Your task to perform on an android device: find which apps use the phone's location Image 0: 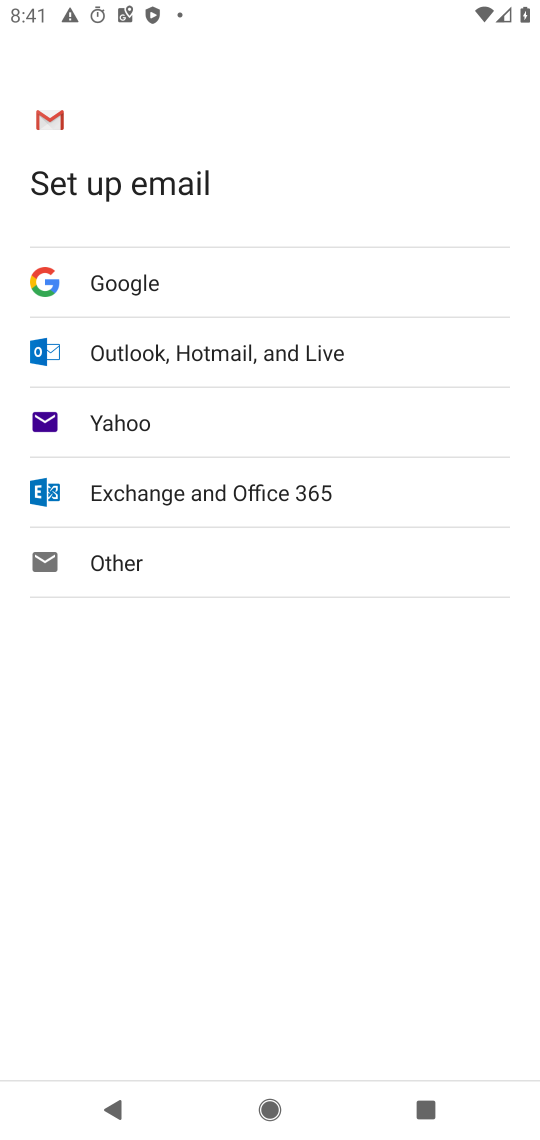
Step 0: press home button
Your task to perform on an android device: find which apps use the phone's location Image 1: 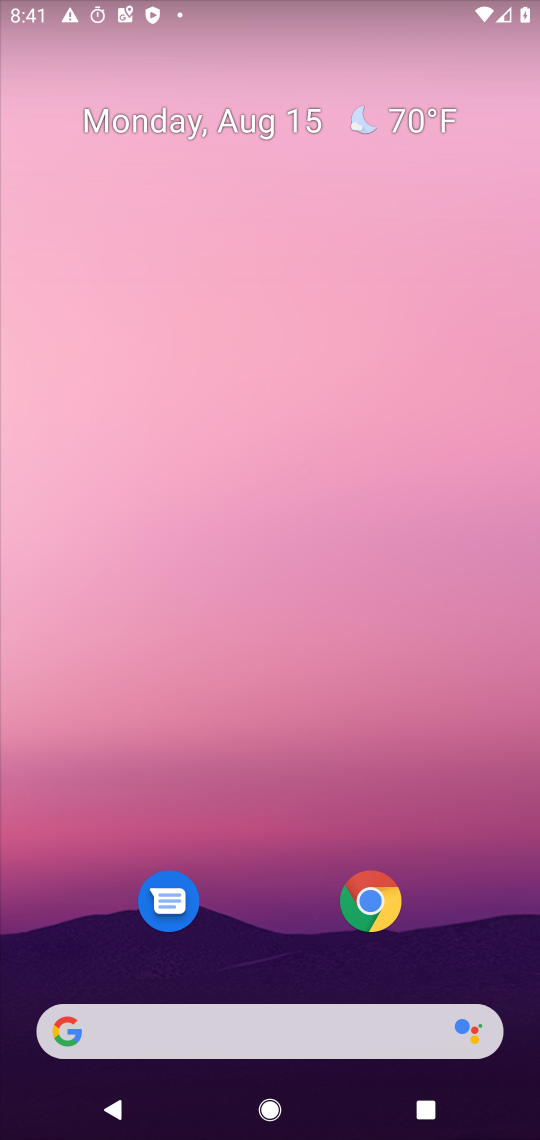
Step 1: drag from (258, 891) to (179, 22)
Your task to perform on an android device: find which apps use the phone's location Image 2: 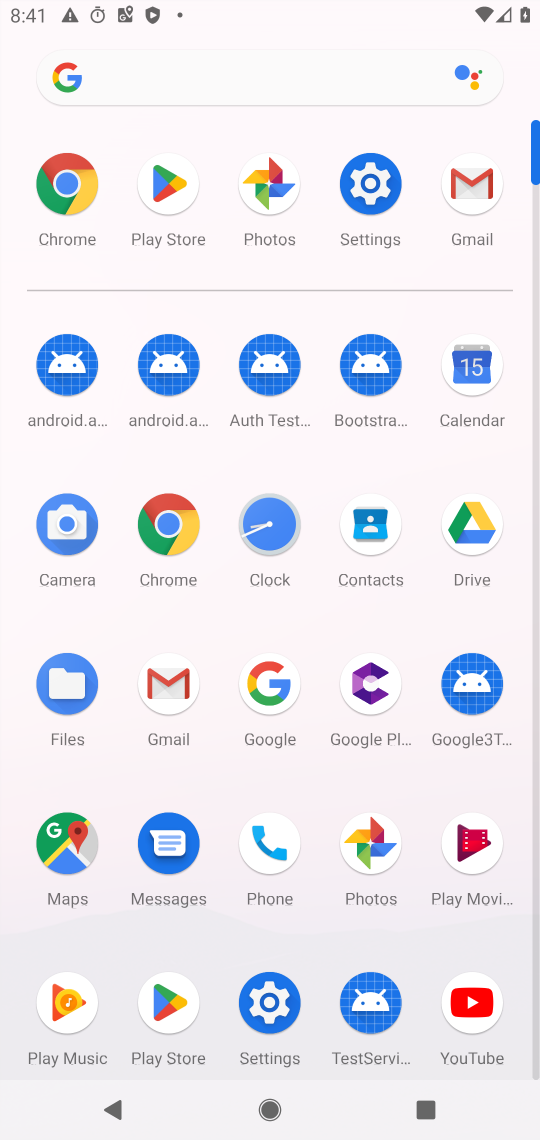
Step 2: click (286, 1002)
Your task to perform on an android device: find which apps use the phone's location Image 3: 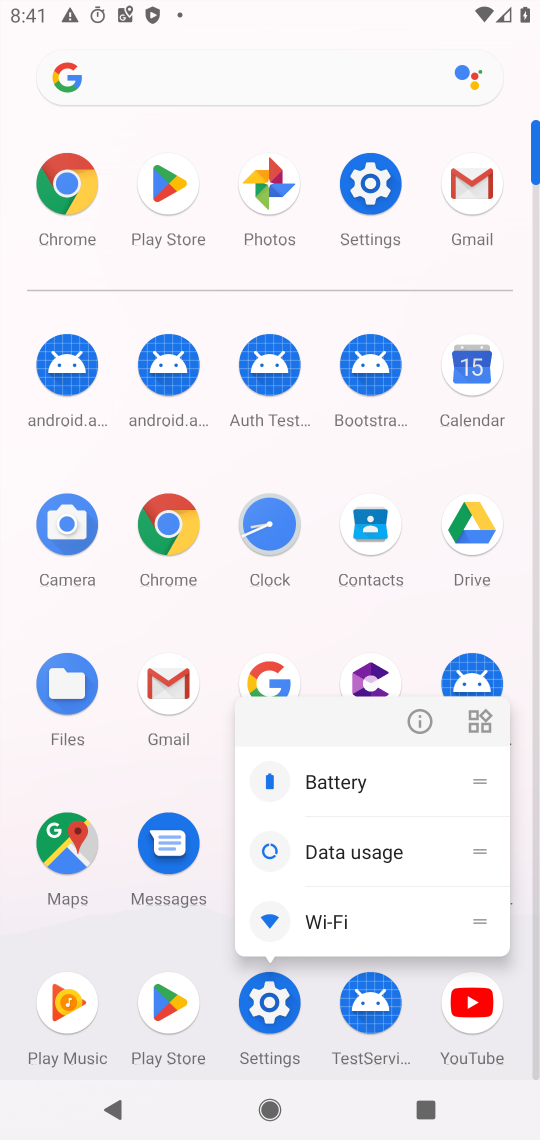
Step 3: click (260, 1002)
Your task to perform on an android device: find which apps use the phone's location Image 4: 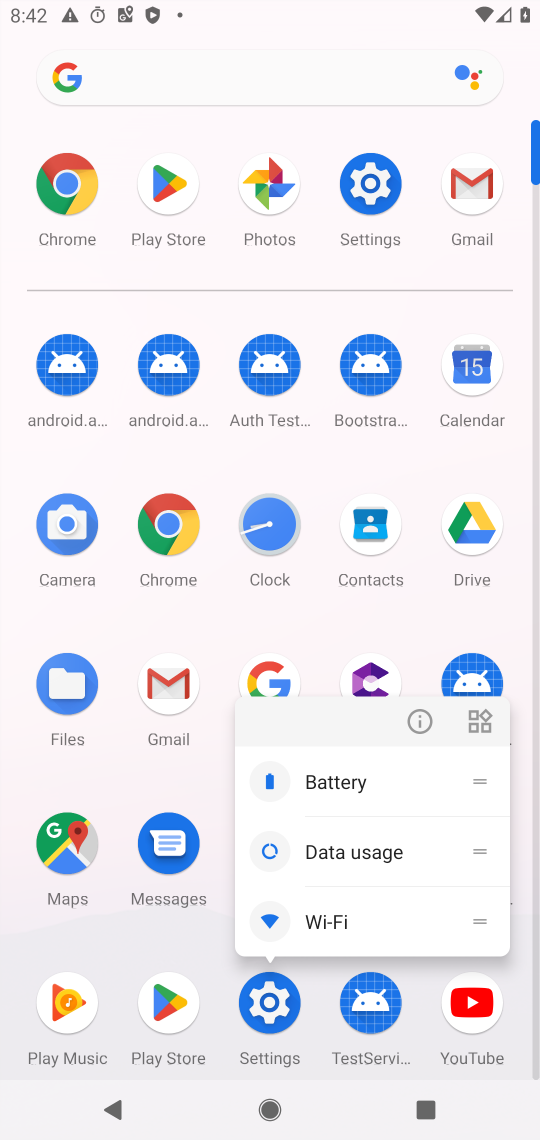
Step 4: click (260, 1002)
Your task to perform on an android device: find which apps use the phone's location Image 5: 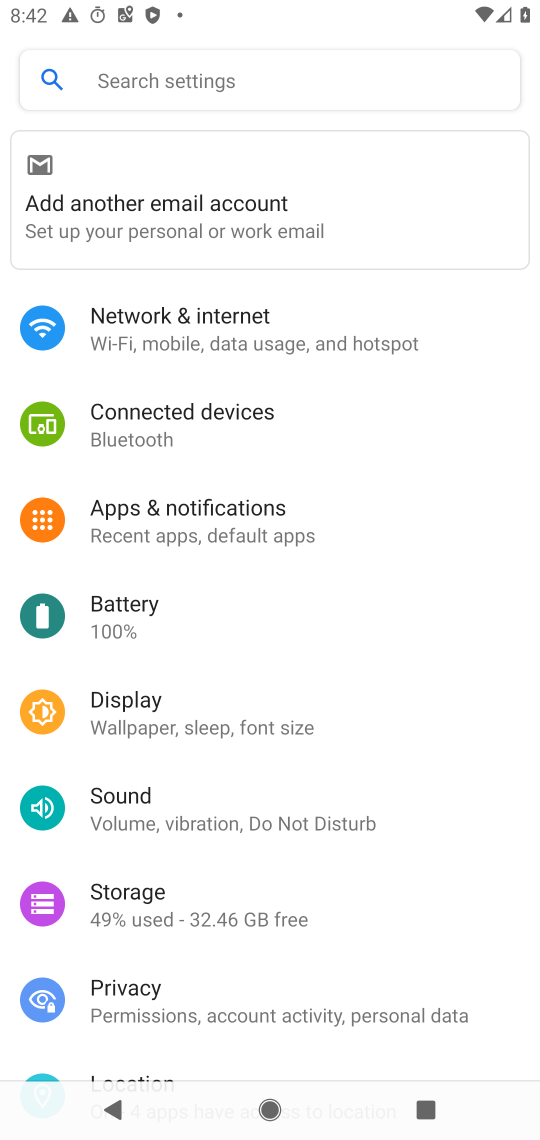
Step 5: drag from (150, 1031) to (166, 609)
Your task to perform on an android device: find which apps use the phone's location Image 6: 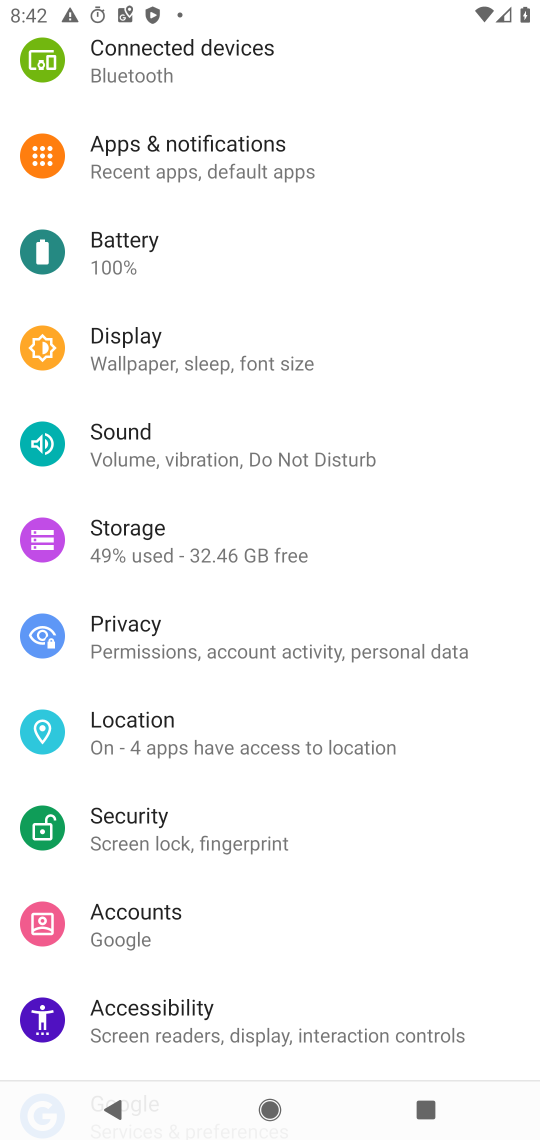
Step 6: click (174, 740)
Your task to perform on an android device: find which apps use the phone's location Image 7: 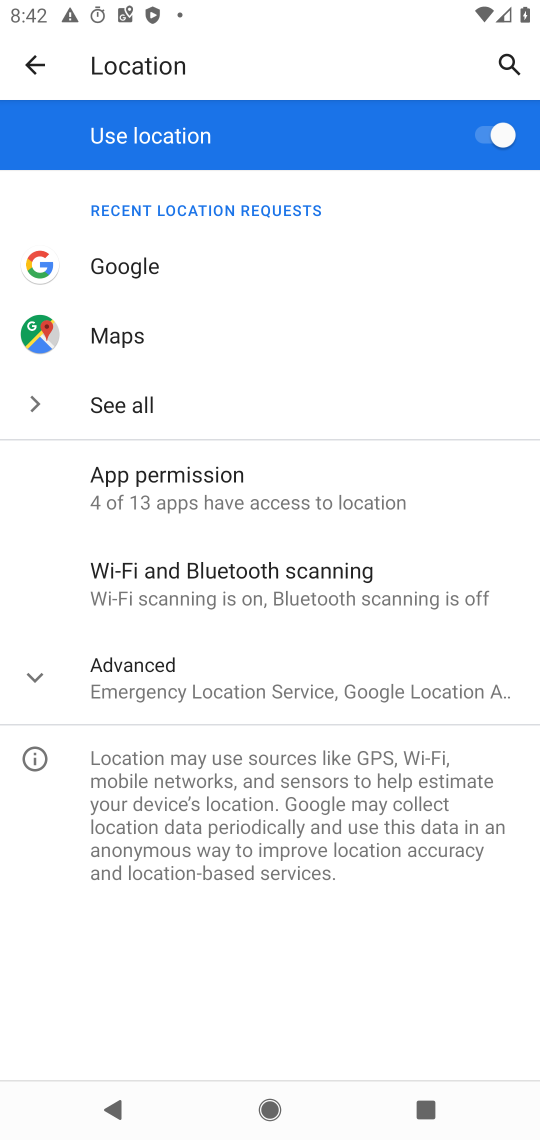
Step 7: click (174, 490)
Your task to perform on an android device: find which apps use the phone's location Image 8: 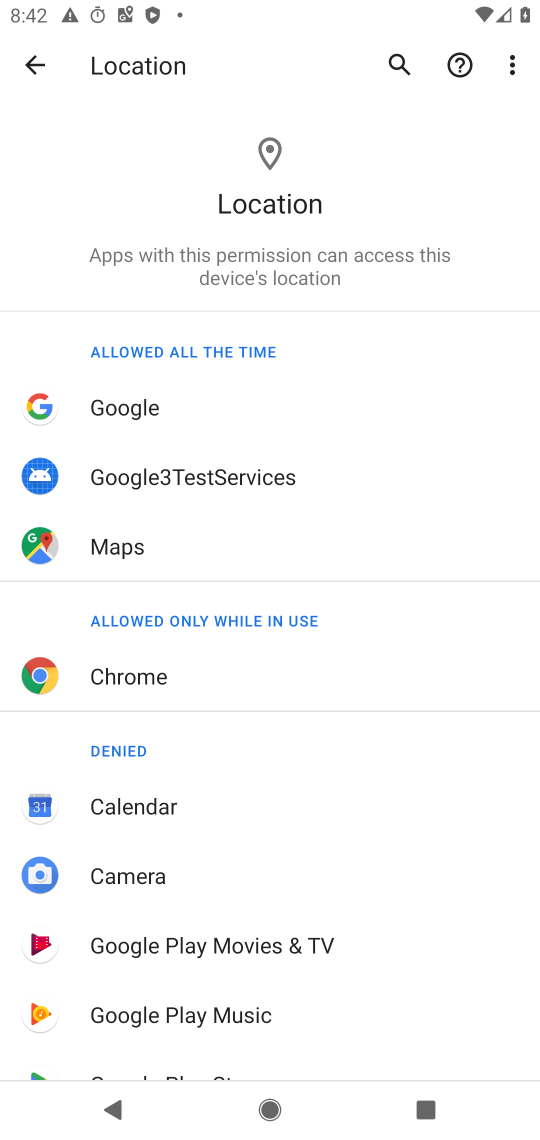
Step 8: task complete